Your task to perform on an android device: Open network settings Image 0: 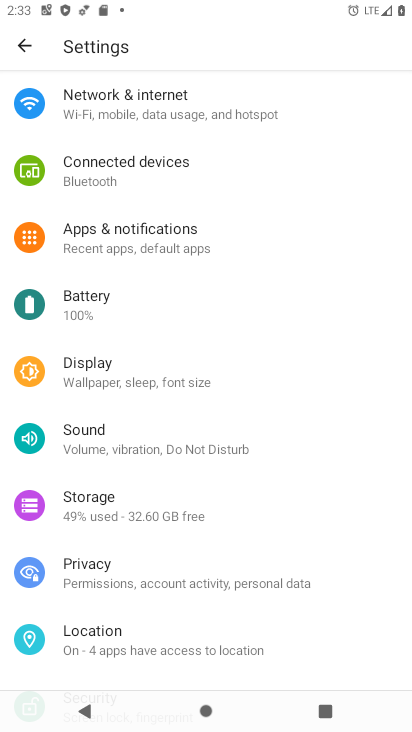
Step 0: click (170, 103)
Your task to perform on an android device: Open network settings Image 1: 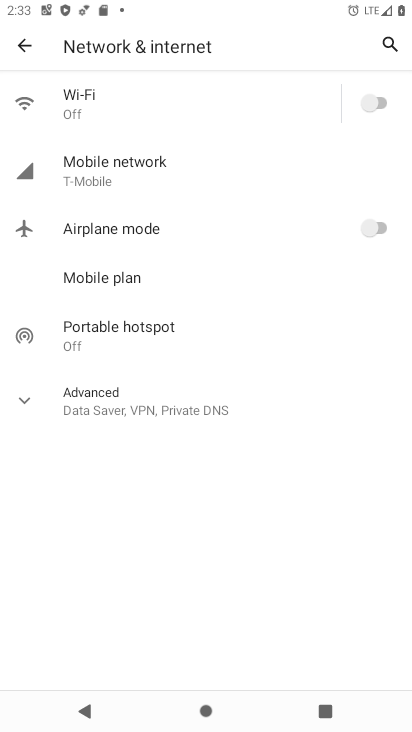
Step 1: click (168, 178)
Your task to perform on an android device: Open network settings Image 2: 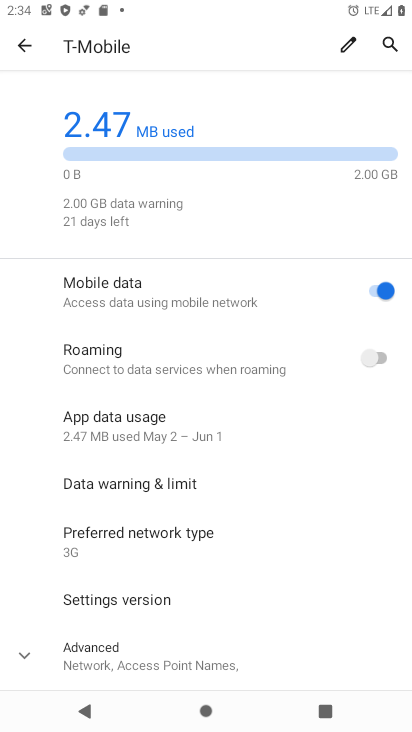
Step 2: task complete